Your task to perform on an android device: open the mobile data screen to see how much data has been used Image 0: 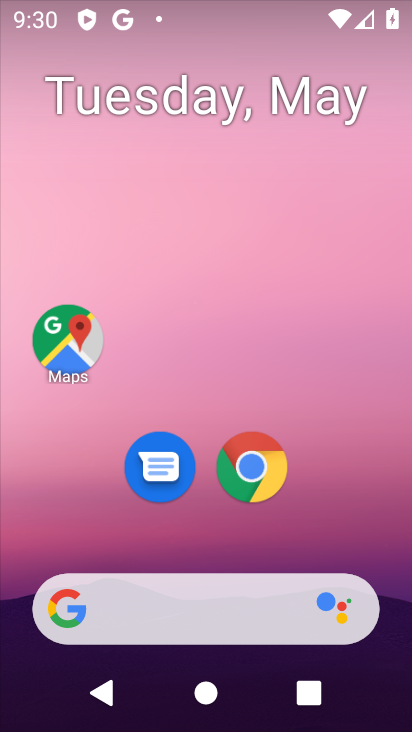
Step 0: drag from (362, 482) to (271, 16)
Your task to perform on an android device: open the mobile data screen to see how much data has been used Image 1: 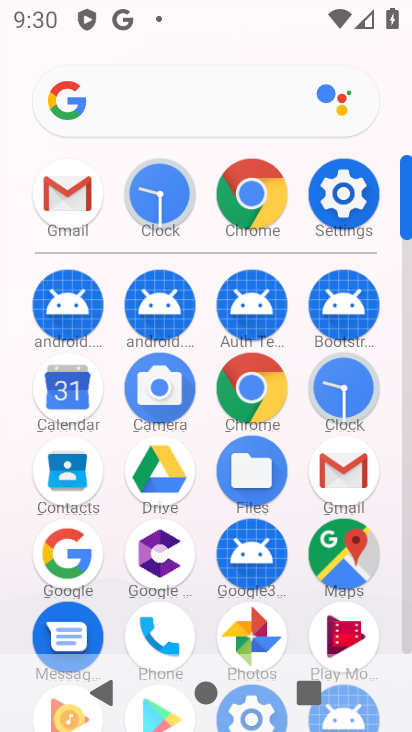
Step 1: drag from (7, 562) to (15, 230)
Your task to perform on an android device: open the mobile data screen to see how much data has been used Image 2: 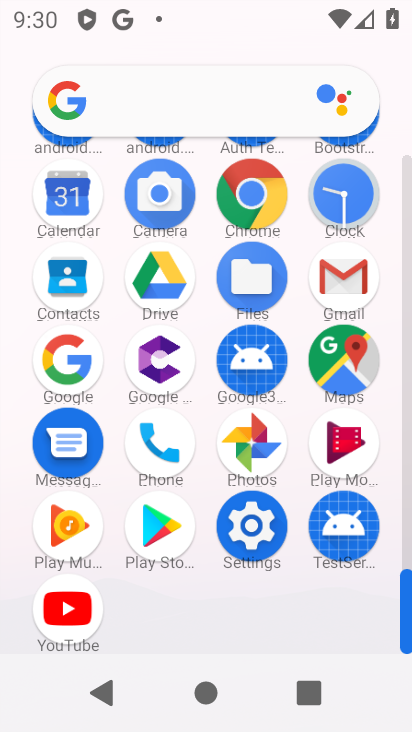
Step 2: click (246, 524)
Your task to perform on an android device: open the mobile data screen to see how much data has been used Image 3: 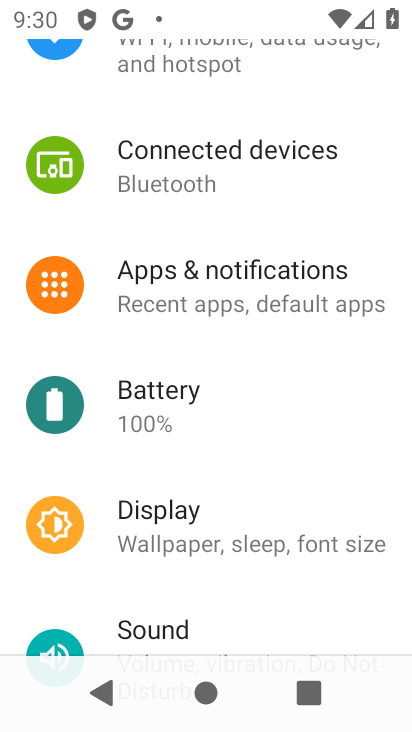
Step 3: drag from (294, 188) to (262, 623)
Your task to perform on an android device: open the mobile data screen to see how much data has been used Image 4: 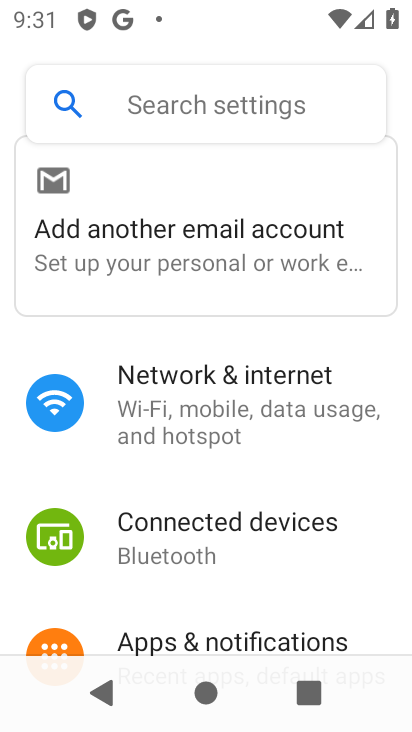
Step 4: click (184, 416)
Your task to perform on an android device: open the mobile data screen to see how much data has been used Image 5: 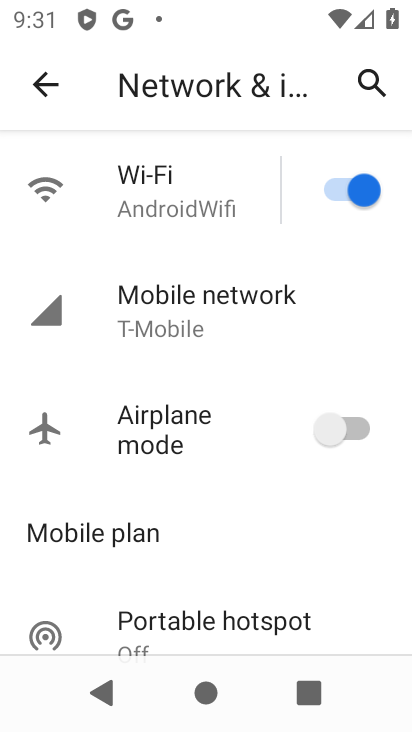
Step 5: click (172, 299)
Your task to perform on an android device: open the mobile data screen to see how much data has been used Image 6: 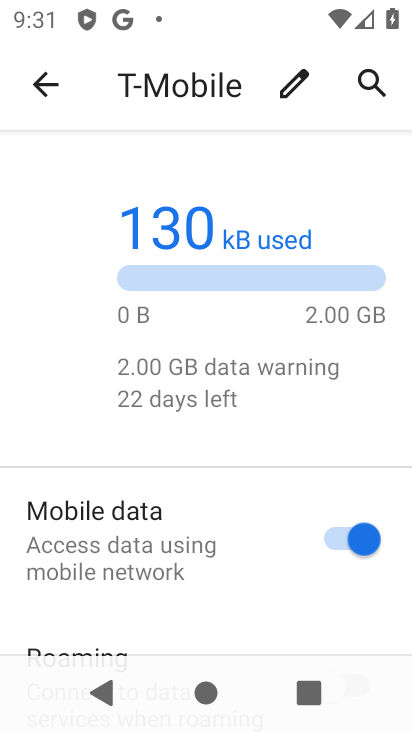
Step 6: task complete